Your task to perform on an android device: Search for logitech g pro on target.com, select the first entry, add it to the cart, then select checkout. Image 0: 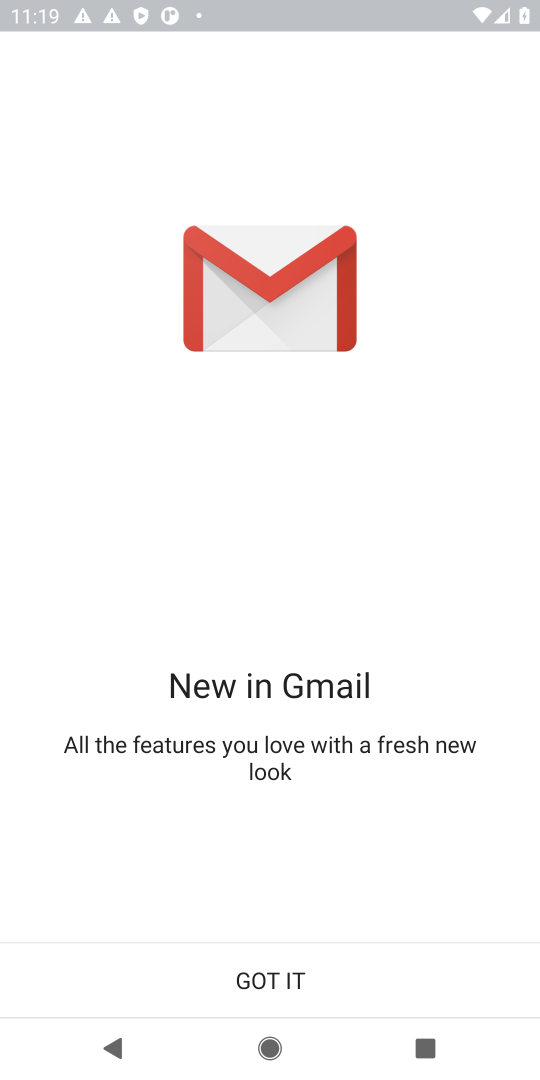
Step 0: press home button
Your task to perform on an android device: Search for logitech g pro on target.com, select the first entry, add it to the cart, then select checkout. Image 1: 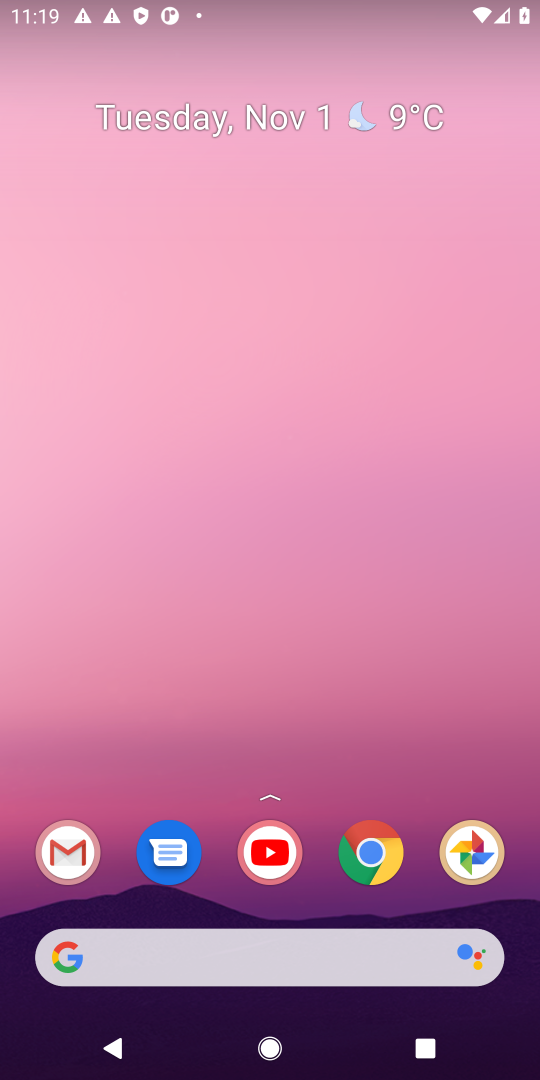
Step 1: drag from (356, 477) to (327, 85)
Your task to perform on an android device: Search for logitech g pro on target.com, select the first entry, add it to the cart, then select checkout. Image 2: 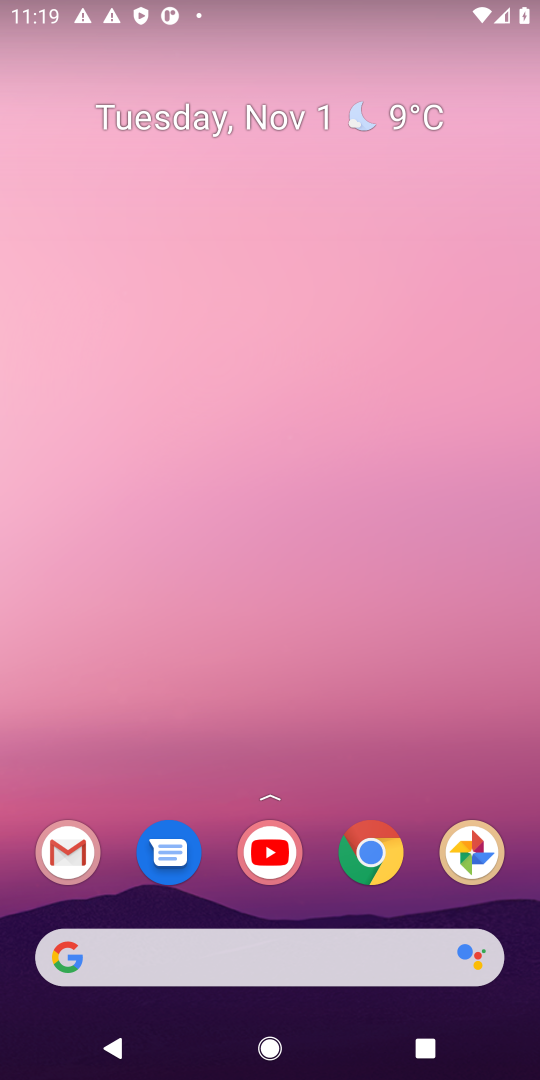
Step 2: drag from (269, 749) to (269, 410)
Your task to perform on an android device: Search for logitech g pro on target.com, select the first entry, add it to the cart, then select checkout. Image 3: 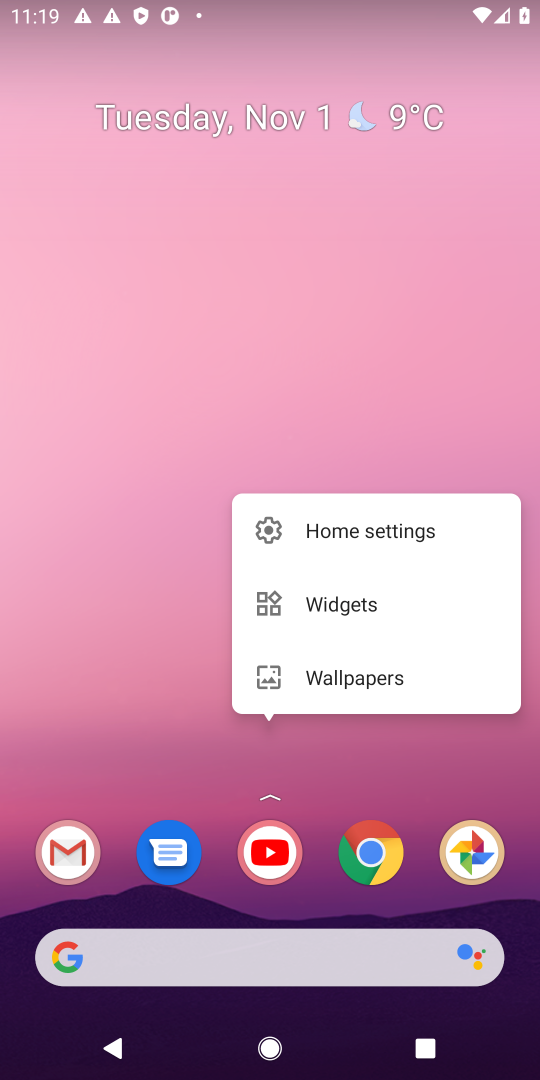
Step 3: click (161, 534)
Your task to perform on an android device: Search for logitech g pro on target.com, select the first entry, add it to the cart, then select checkout. Image 4: 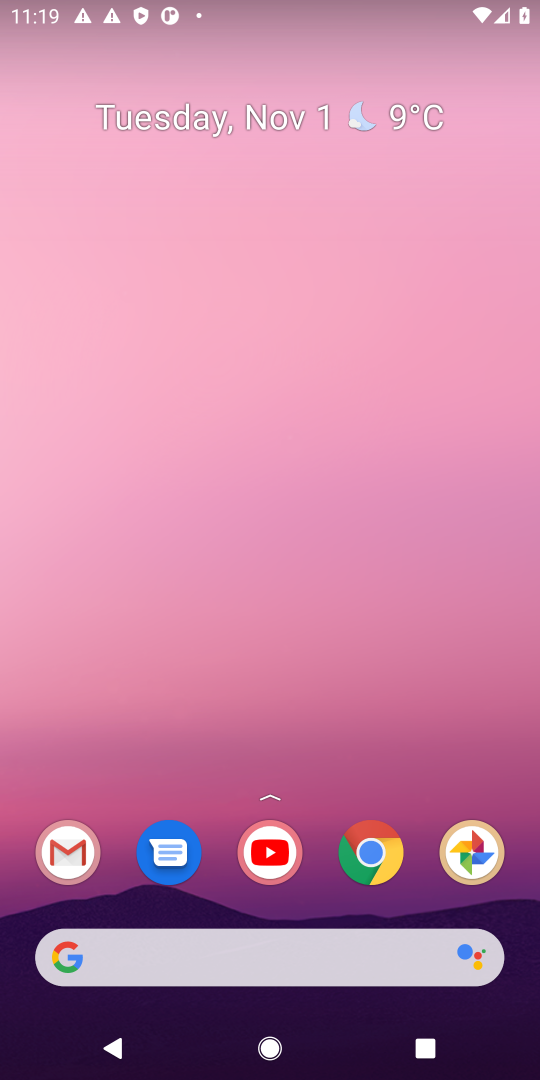
Step 4: drag from (284, 883) to (200, 379)
Your task to perform on an android device: Search for logitech g pro on target.com, select the first entry, add it to the cart, then select checkout. Image 5: 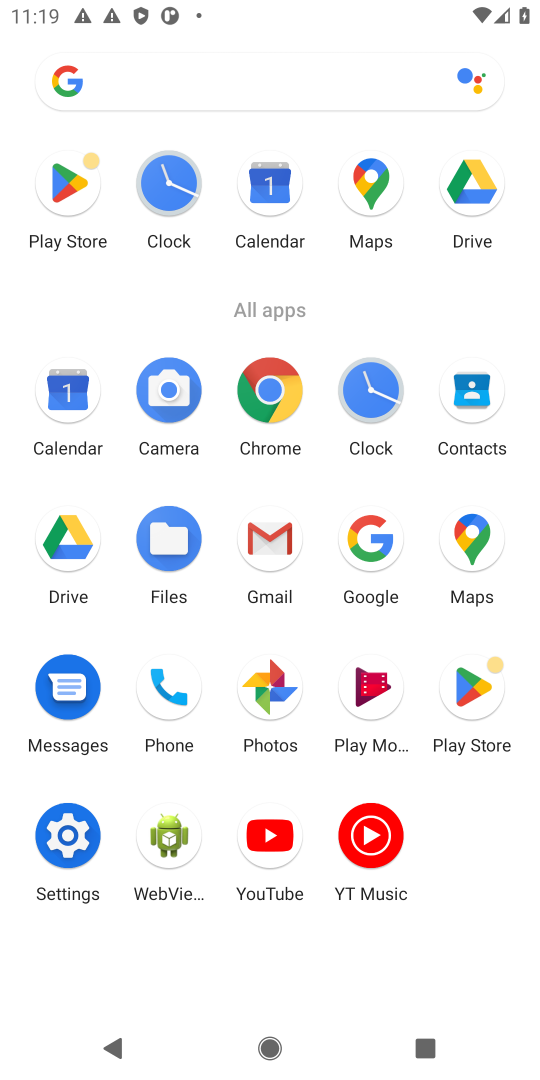
Step 5: click (381, 574)
Your task to perform on an android device: Search for logitech g pro on target.com, select the first entry, add it to the cart, then select checkout. Image 6: 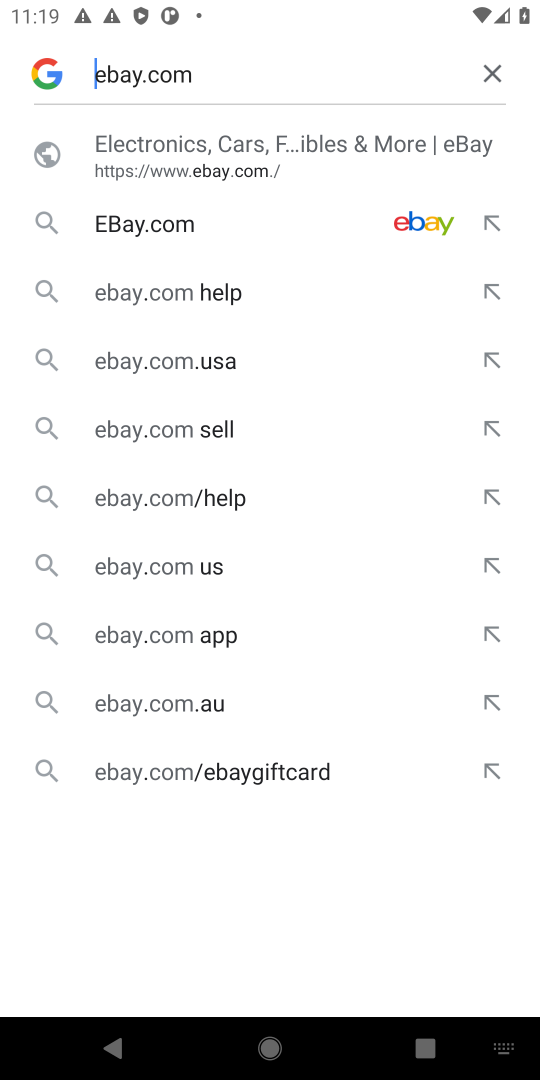
Step 6: click (495, 71)
Your task to perform on an android device: Search for logitech g pro on target.com, select the first entry, add it to the cart, then select checkout. Image 7: 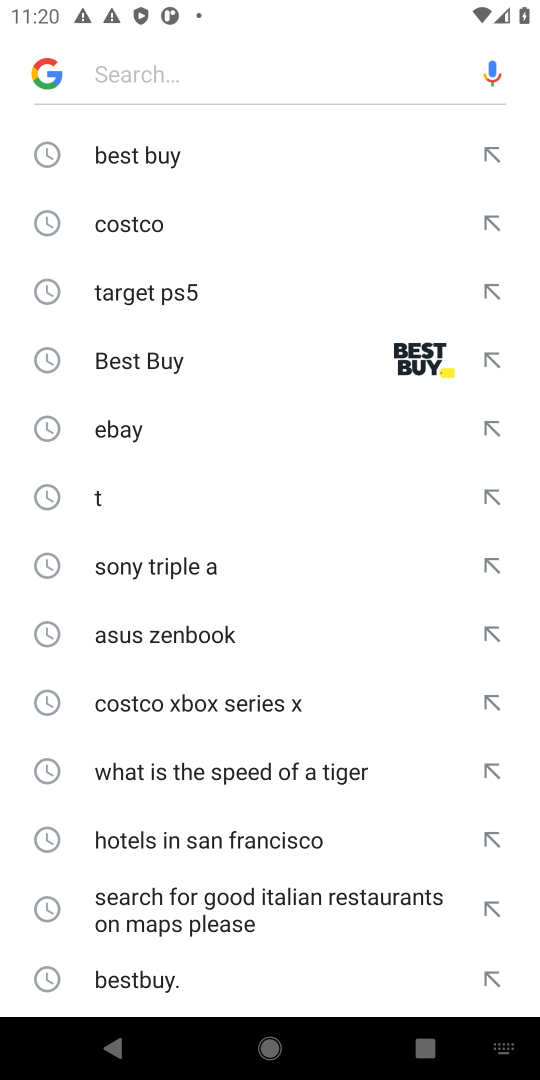
Step 7: type "target.com"
Your task to perform on an android device: Search for logitech g pro on target.com, select the first entry, add it to the cart, then select checkout. Image 8: 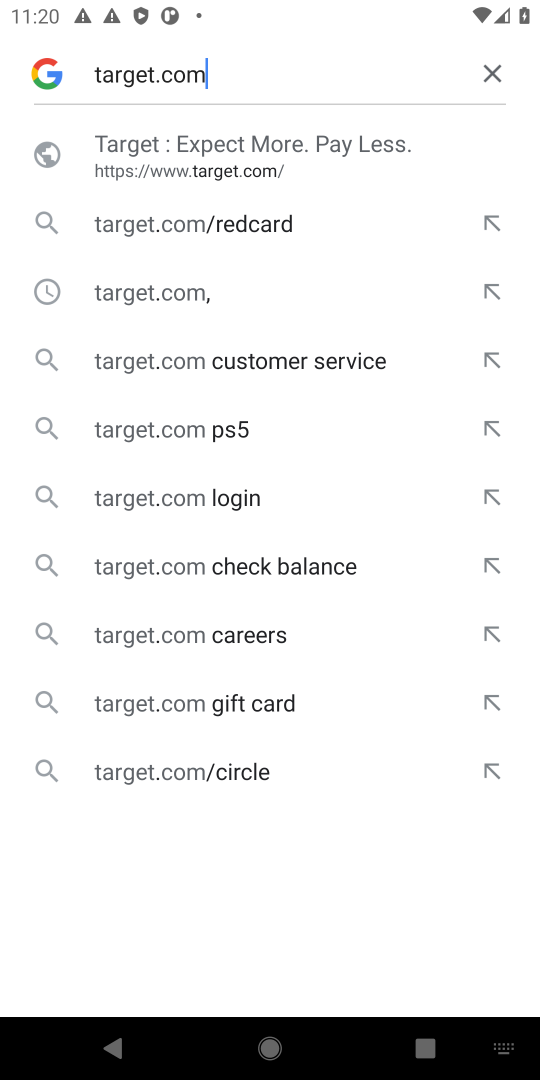
Step 8: click (160, 157)
Your task to perform on an android device: Search for logitech g pro on target.com, select the first entry, add it to the cart, then select checkout. Image 9: 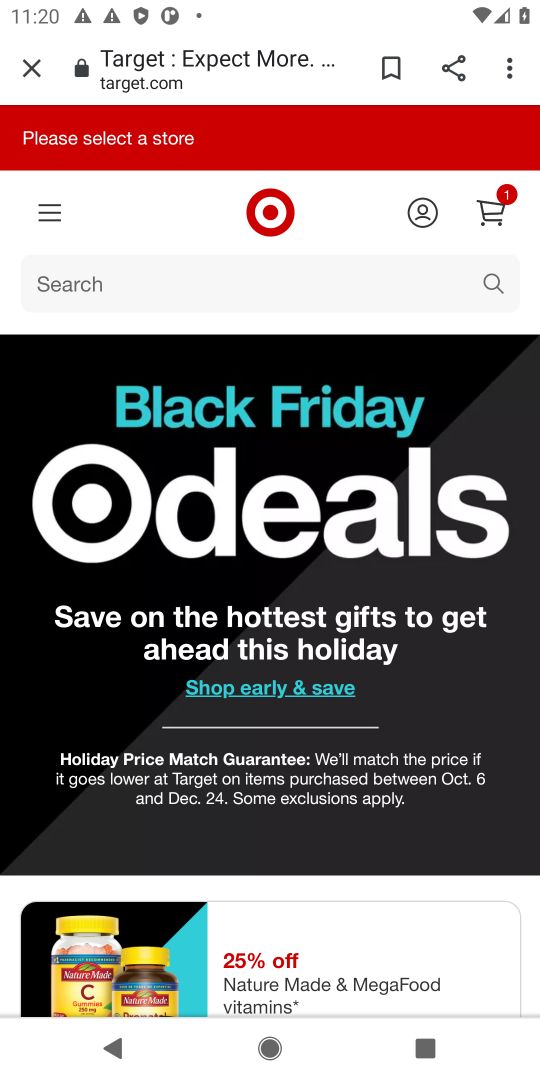
Step 9: click (219, 267)
Your task to perform on an android device: Search for logitech g pro on target.com, select the first entry, add it to the cart, then select checkout. Image 10: 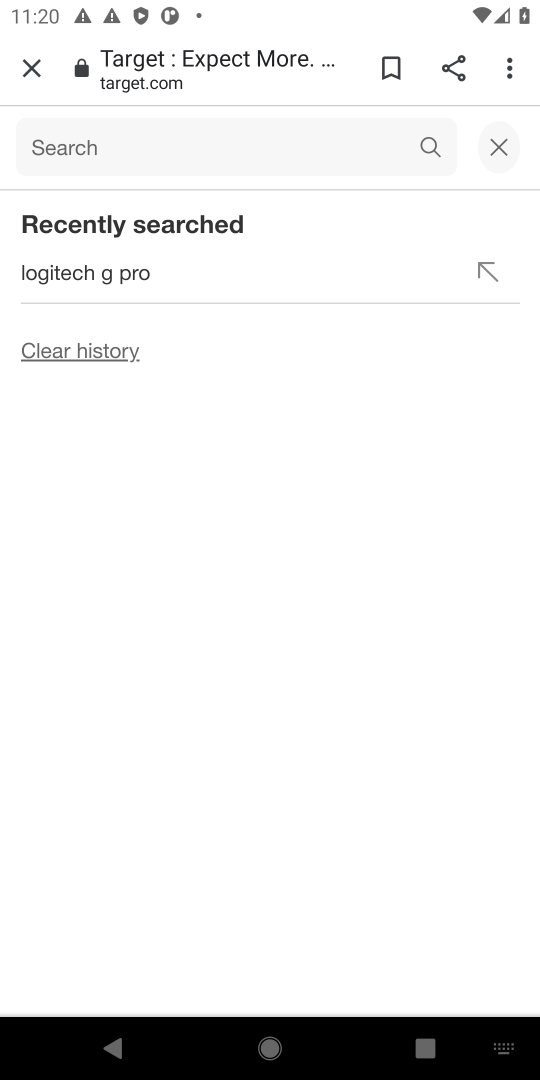
Step 10: type "logitech g pro"
Your task to perform on an android device: Search for logitech g pro on target.com, select the first entry, add it to the cart, then select checkout. Image 11: 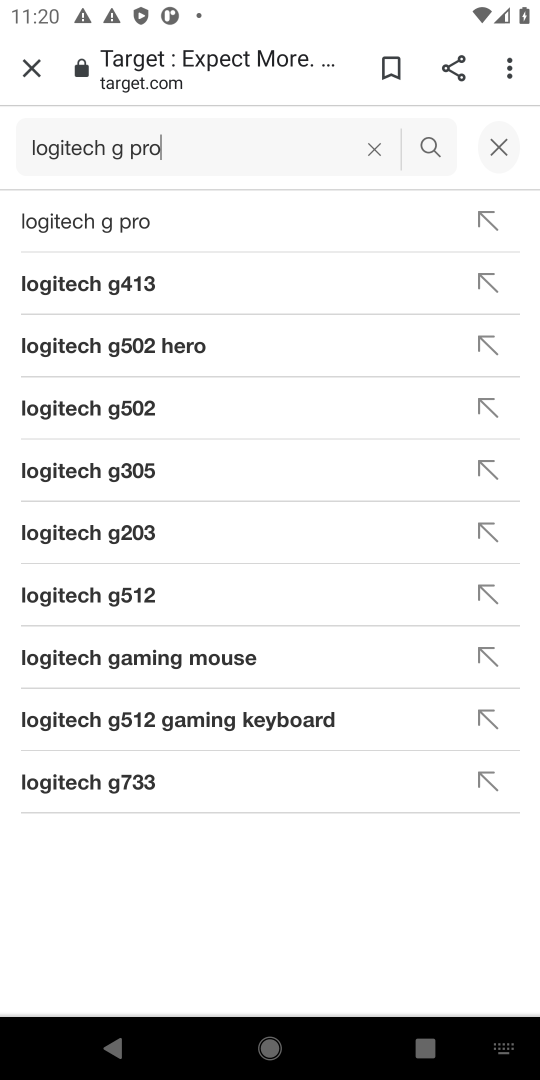
Step 11: click (217, 209)
Your task to perform on an android device: Search for logitech g pro on target.com, select the first entry, add it to the cart, then select checkout. Image 12: 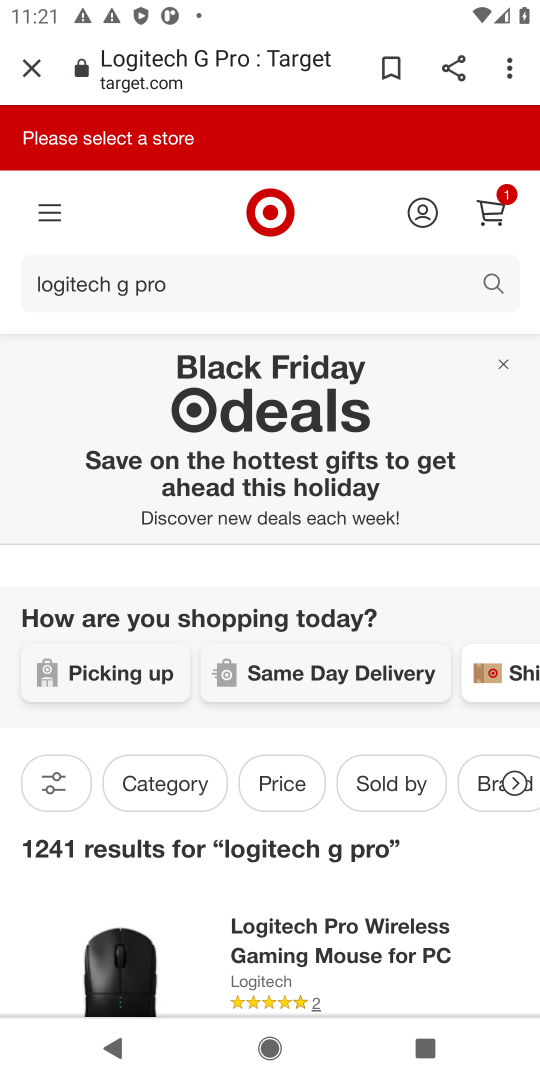
Step 12: drag from (324, 902) to (339, 418)
Your task to perform on an android device: Search for logitech g pro on target.com, select the first entry, add it to the cart, then select checkout. Image 13: 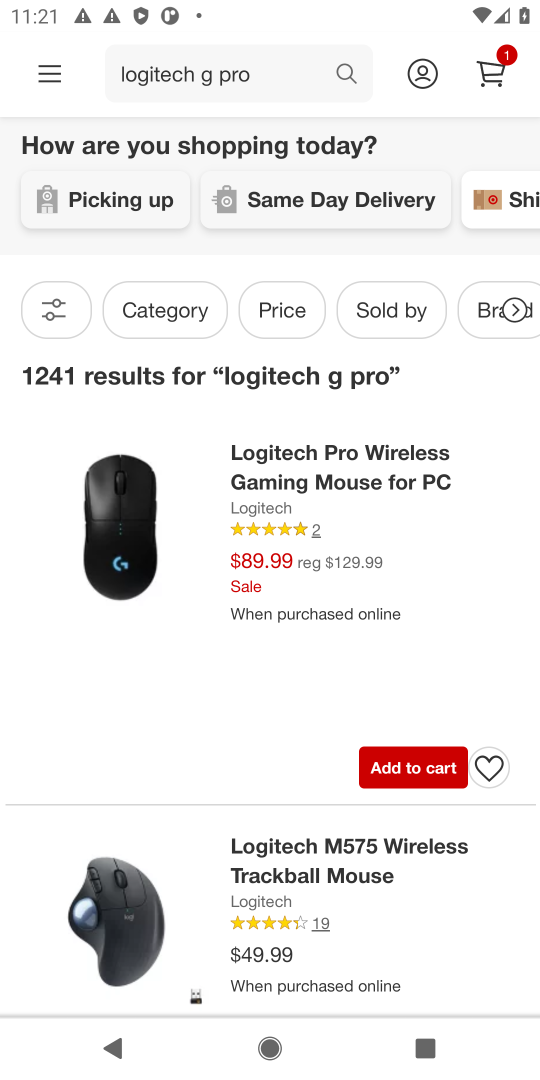
Step 13: click (333, 587)
Your task to perform on an android device: Search for logitech g pro on target.com, select the first entry, add it to the cart, then select checkout. Image 14: 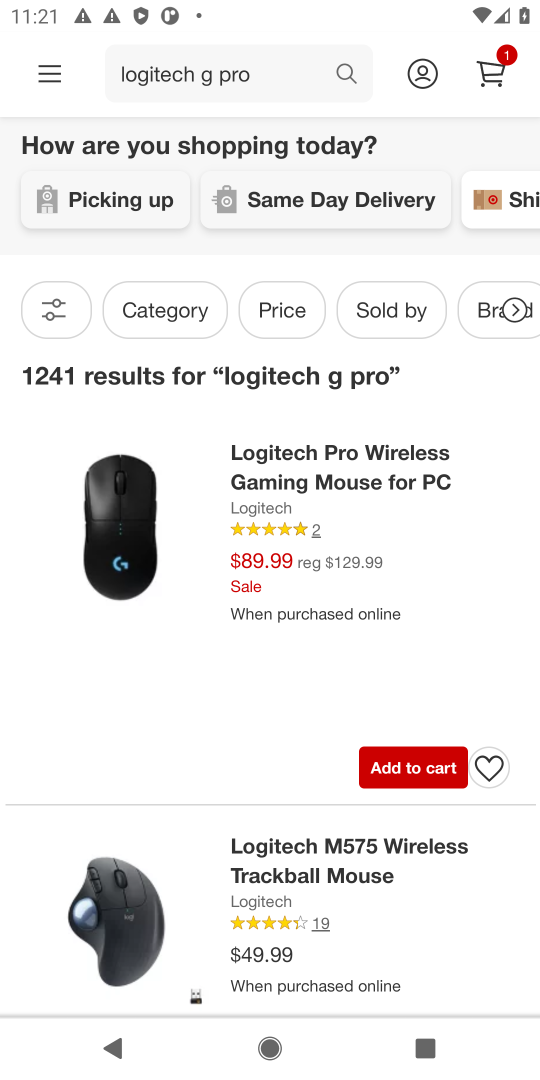
Step 14: click (352, 463)
Your task to perform on an android device: Search for logitech g pro on target.com, select the first entry, add it to the cart, then select checkout. Image 15: 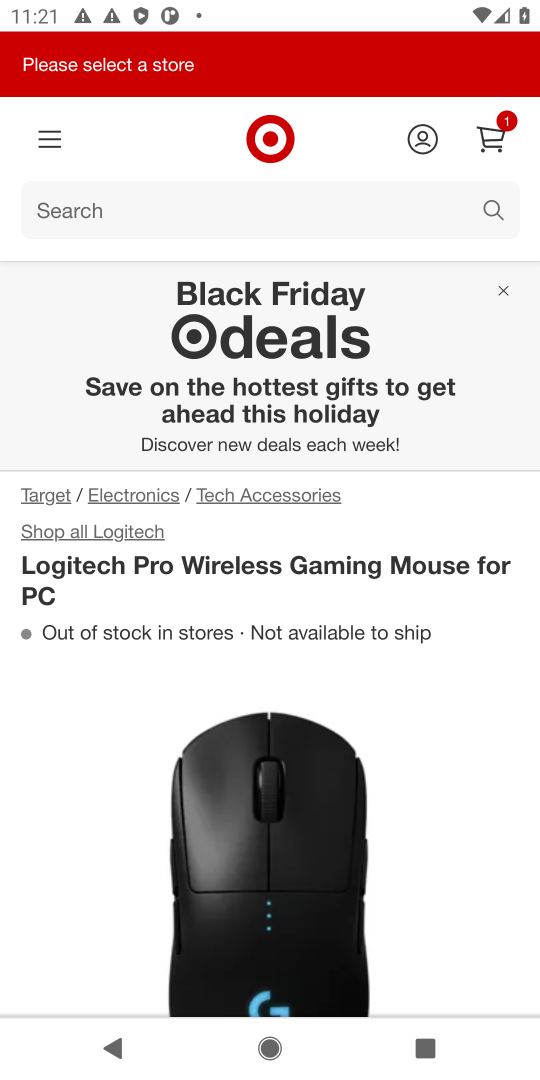
Step 15: drag from (413, 779) to (419, 171)
Your task to perform on an android device: Search for logitech g pro on target.com, select the first entry, add it to the cart, then select checkout. Image 16: 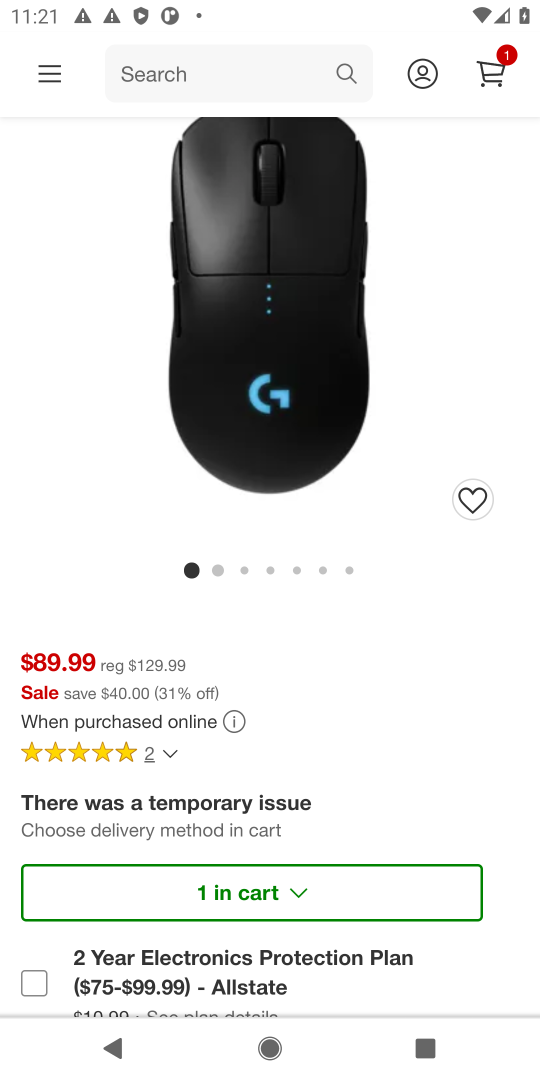
Step 16: drag from (432, 674) to (433, 263)
Your task to perform on an android device: Search for logitech g pro on target.com, select the first entry, add it to the cart, then select checkout. Image 17: 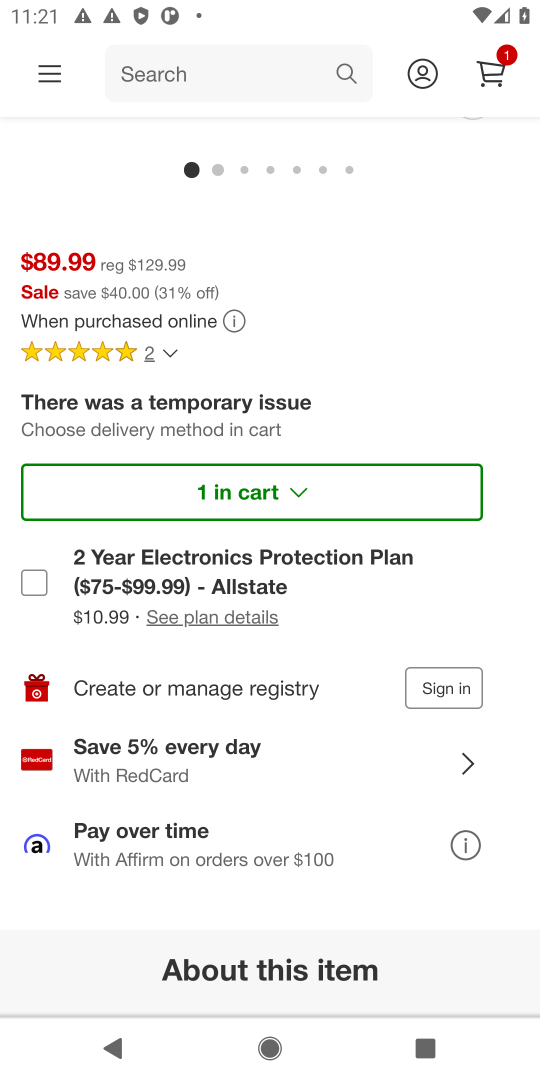
Step 17: drag from (433, 688) to (429, 325)
Your task to perform on an android device: Search for logitech g pro on target.com, select the first entry, add it to the cart, then select checkout. Image 18: 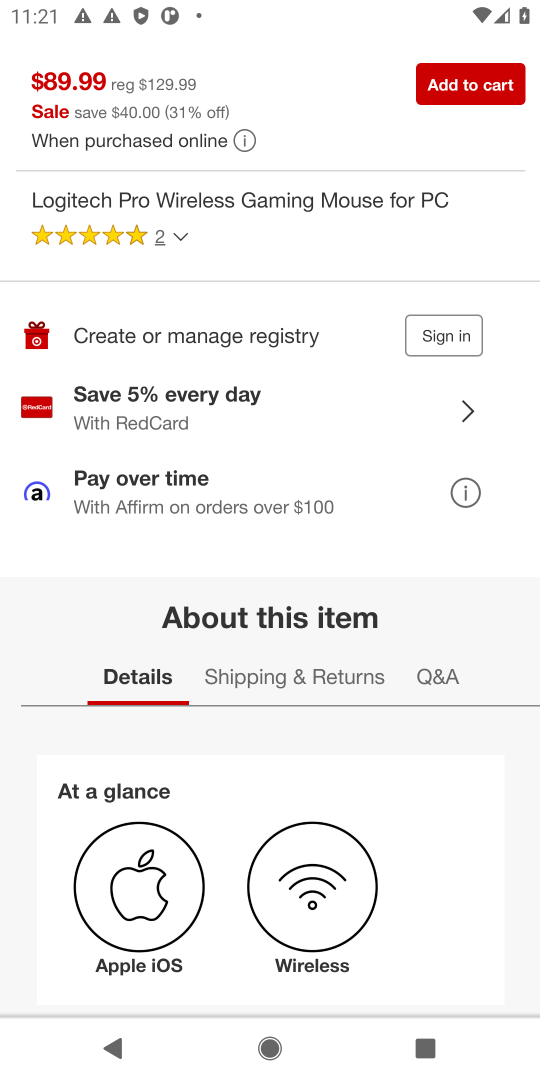
Step 18: drag from (316, 831) to (370, 228)
Your task to perform on an android device: Search for logitech g pro on target.com, select the first entry, add it to the cart, then select checkout. Image 19: 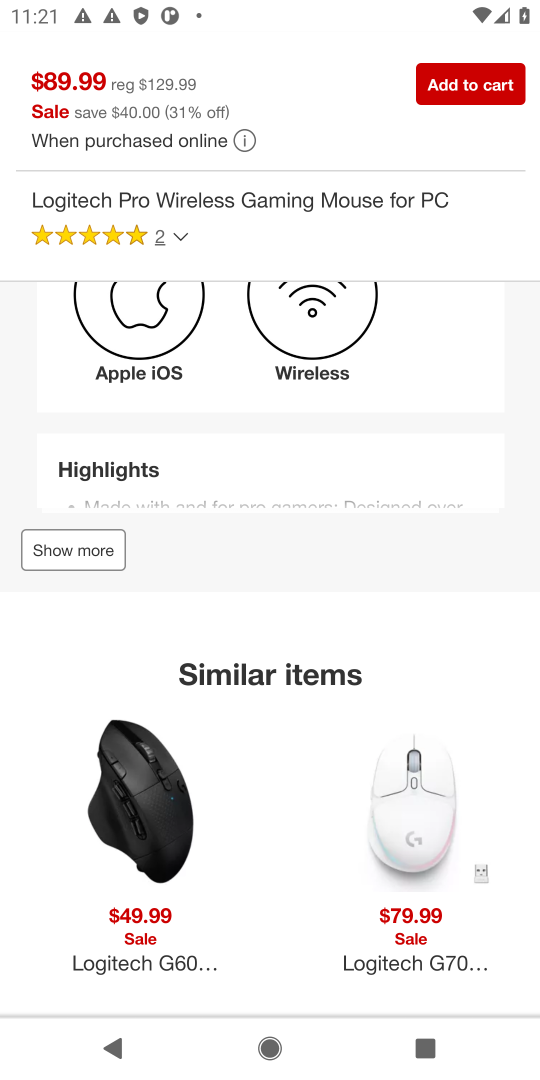
Step 19: drag from (351, 376) to (405, 809)
Your task to perform on an android device: Search for logitech g pro on target.com, select the first entry, add it to the cart, then select checkout. Image 20: 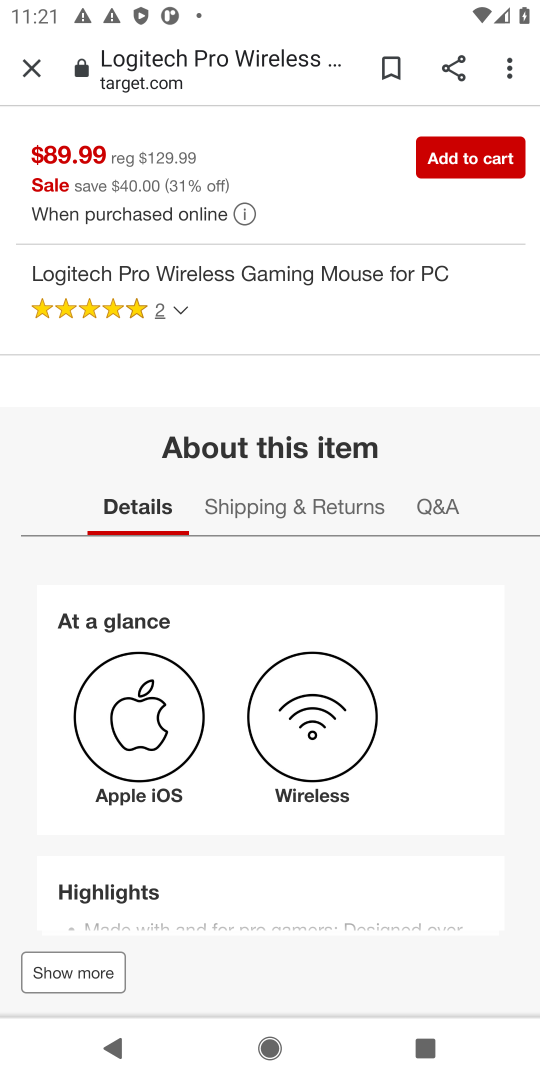
Step 20: click (461, 170)
Your task to perform on an android device: Search for logitech g pro on target.com, select the first entry, add it to the cart, then select checkout. Image 21: 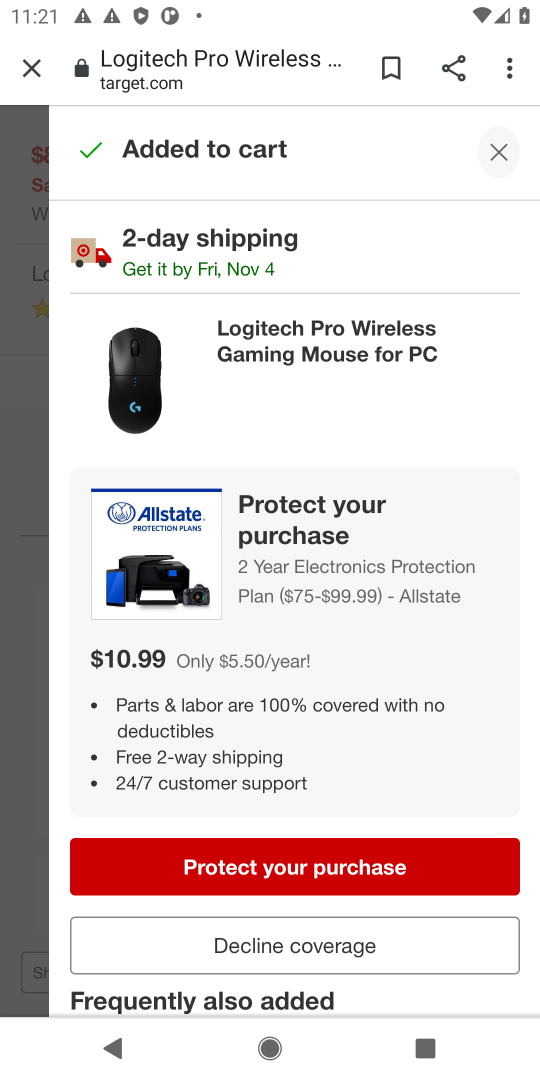
Step 21: task complete